Your task to perform on an android device: snooze an email in the gmail app Image 0: 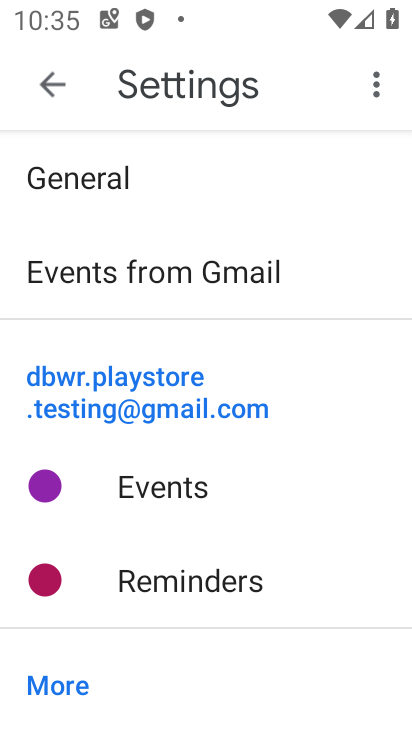
Step 0: press home button
Your task to perform on an android device: snooze an email in the gmail app Image 1: 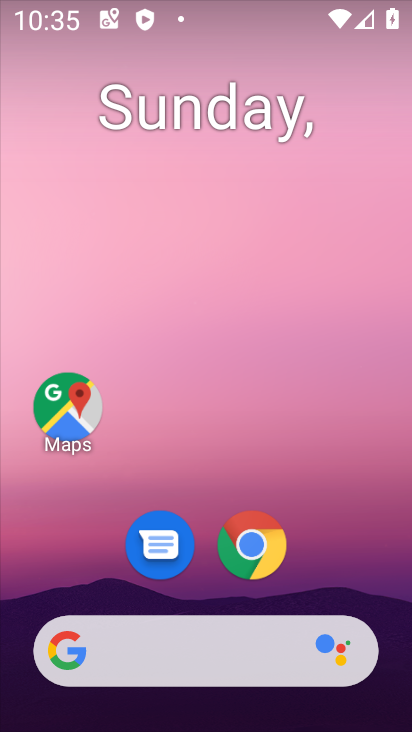
Step 1: drag from (77, 603) to (215, 159)
Your task to perform on an android device: snooze an email in the gmail app Image 2: 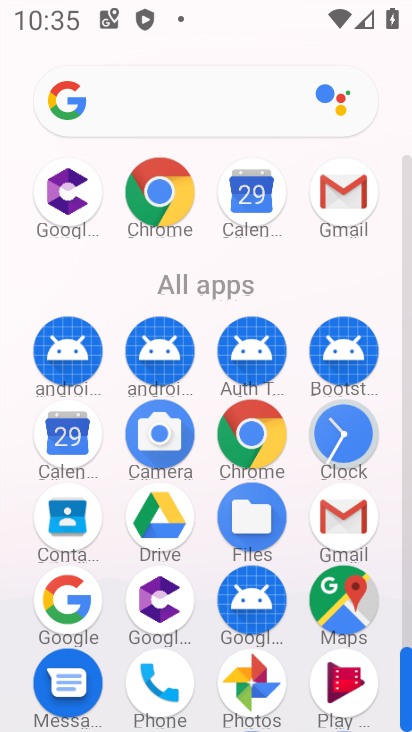
Step 2: click (358, 523)
Your task to perform on an android device: snooze an email in the gmail app Image 3: 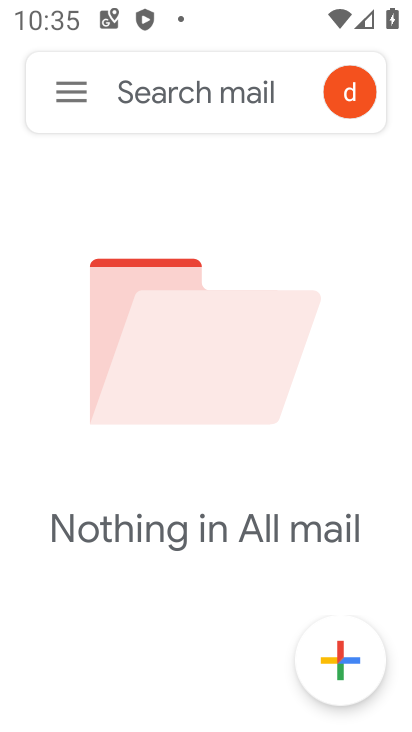
Step 3: click (74, 85)
Your task to perform on an android device: snooze an email in the gmail app Image 4: 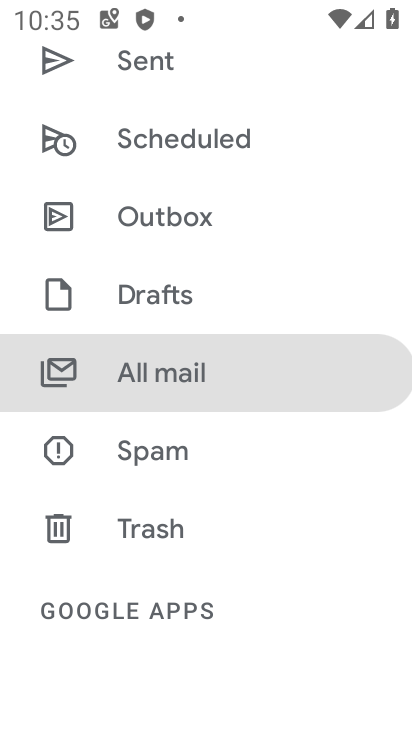
Step 4: click (213, 380)
Your task to perform on an android device: snooze an email in the gmail app Image 5: 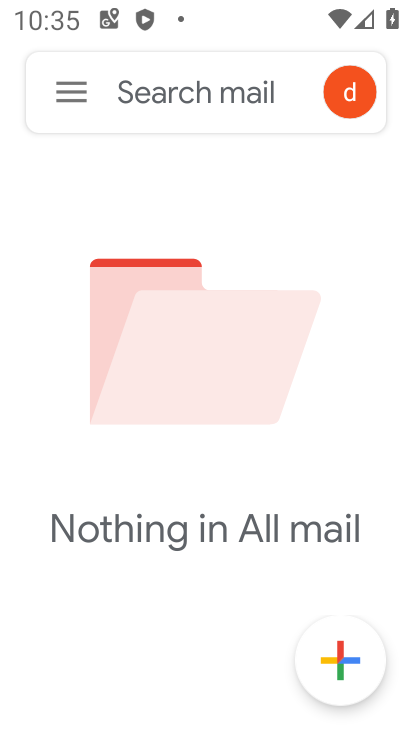
Step 5: task complete